Your task to perform on an android device: Do I have any events today? Image 0: 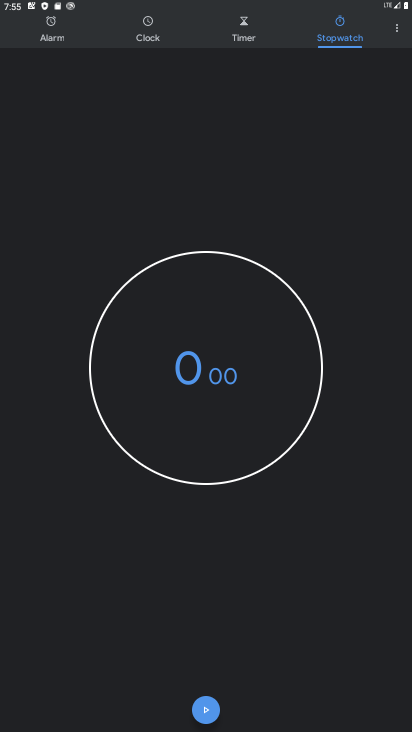
Step 0: press home button
Your task to perform on an android device: Do I have any events today? Image 1: 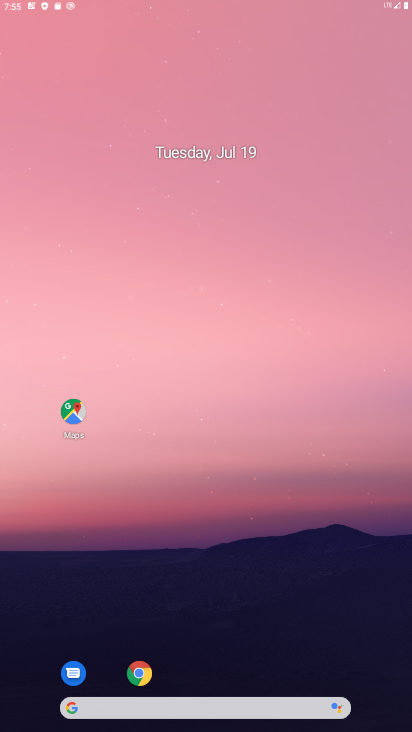
Step 1: drag from (383, 707) to (199, 41)
Your task to perform on an android device: Do I have any events today? Image 2: 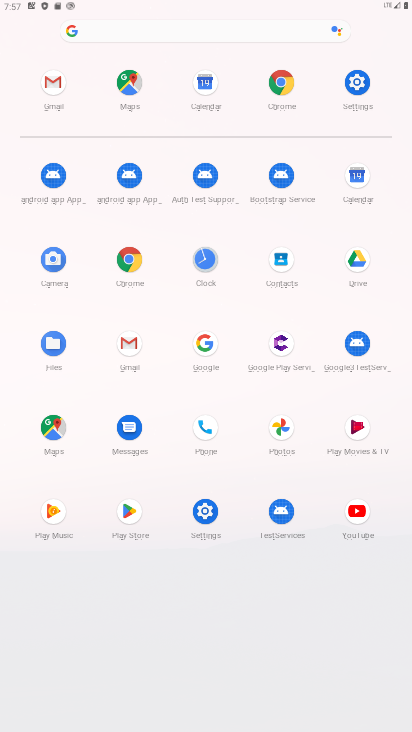
Step 2: click (355, 188)
Your task to perform on an android device: Do I have any events today? Image 3: 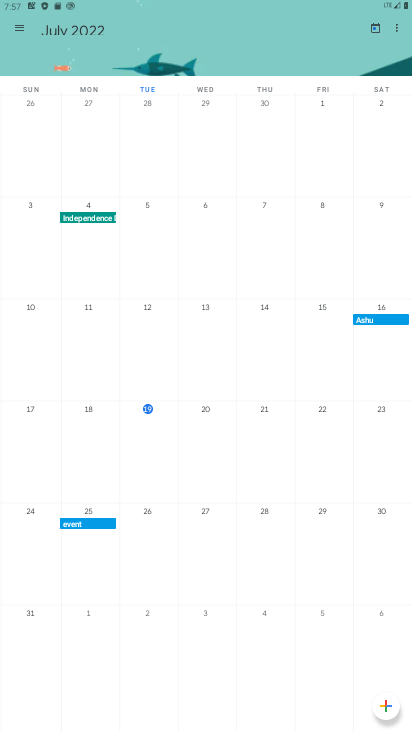
Step 3: task complete